Your task to perform on an android device: Go to internet settings Image 0: 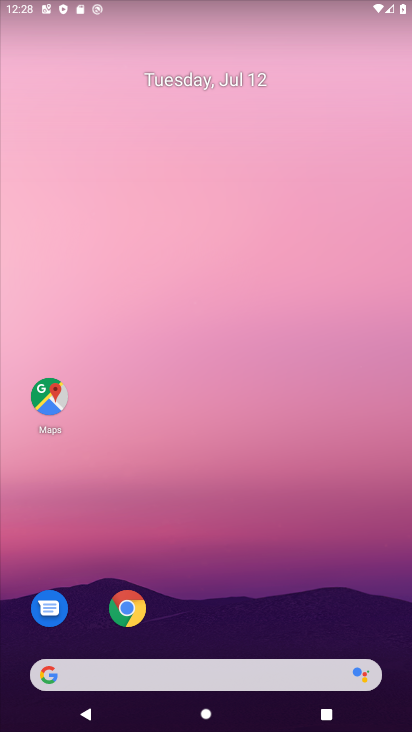
Step 0: drag from (136, 4) to (138, 564)
Your task to perform on an android device: Go to internet settings Image 1: 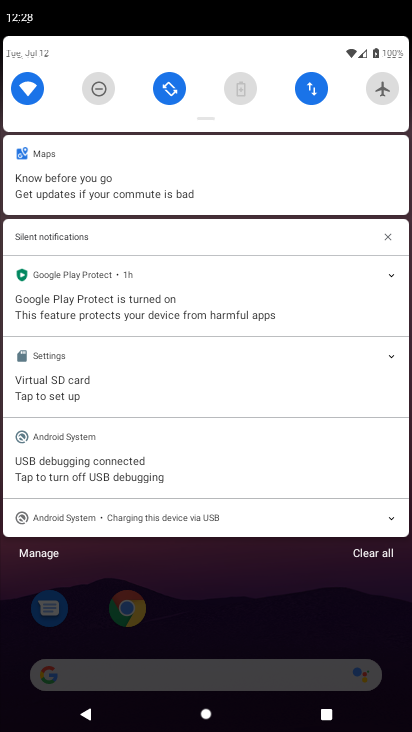
Step 1: click (317, 79)
Your task to perform on an android device: Go to internet settings Image 2: 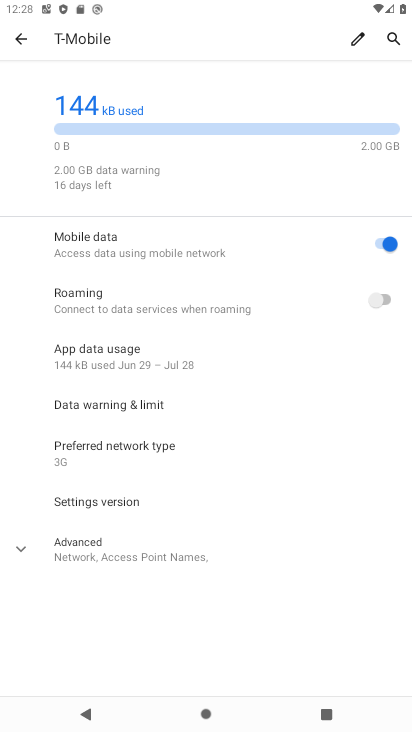
Step 2: task complete